Your task to perform on an android device: turn notification dots on Image 0: 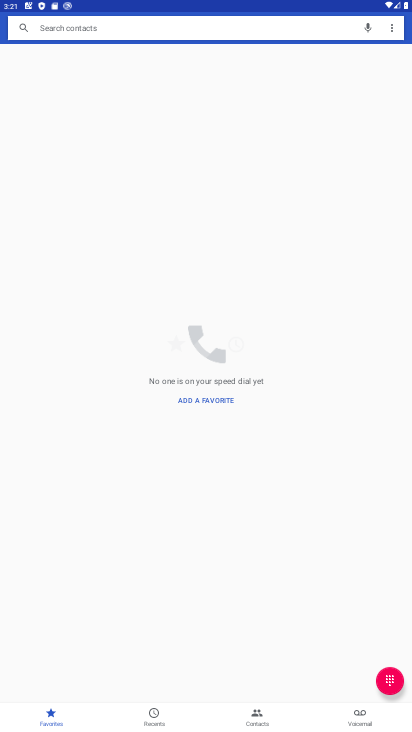
Step 0: press home button
Your task to perform on an android device: turn notification dots on Image 1: 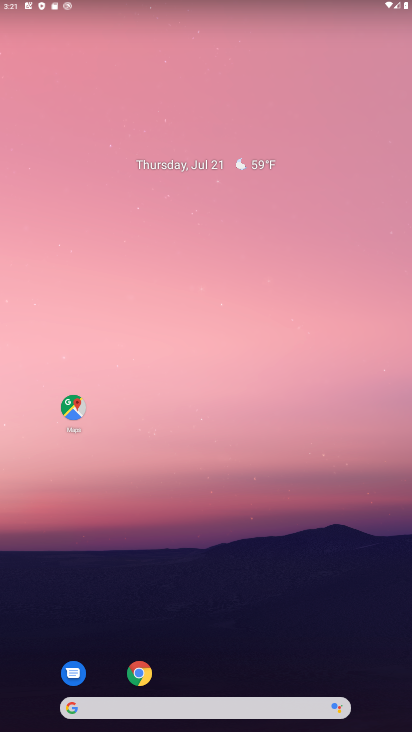
Step 1: drag from (304, 666) to (219, 232)
Your task to perform on an android device: turn notification dots on Image 2: 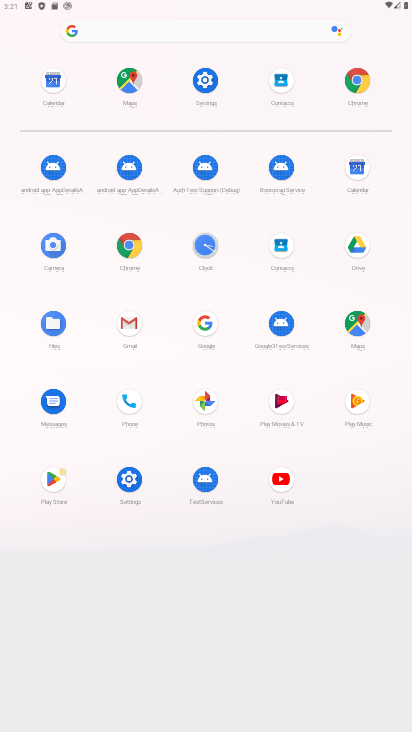
Step 2: click (207, 75)
Your task to perform on an android device: turn notification dots on Image 3: 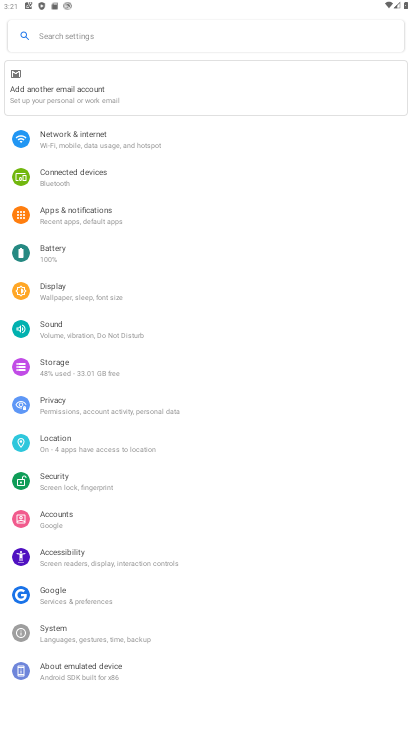
Step 3: click (112, 222)
Your task to perform on an android device: turn notification dots on Image 4: 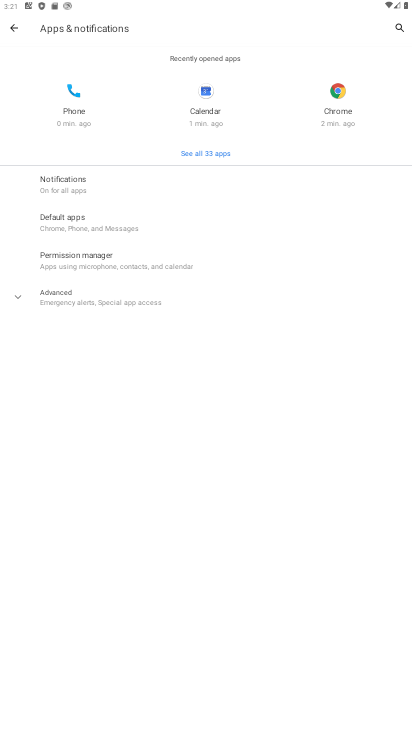
Step 4: click (139, 187)
Your task to perform on an android device: turn notification dots on Image 5: 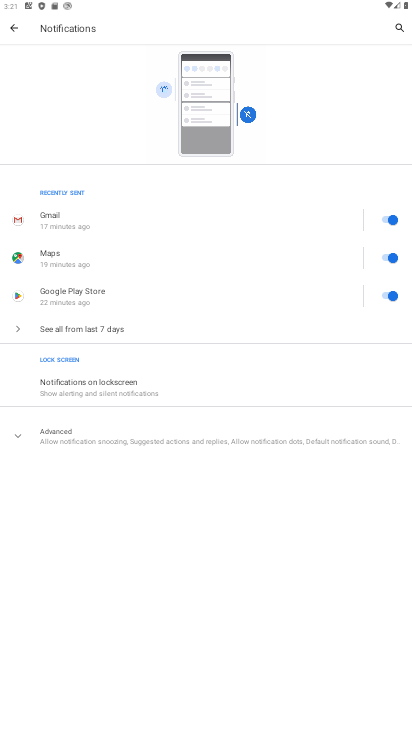
Step 5: click (207, 431)
Your task to perform on an android device: turn notification dots on Image 6: 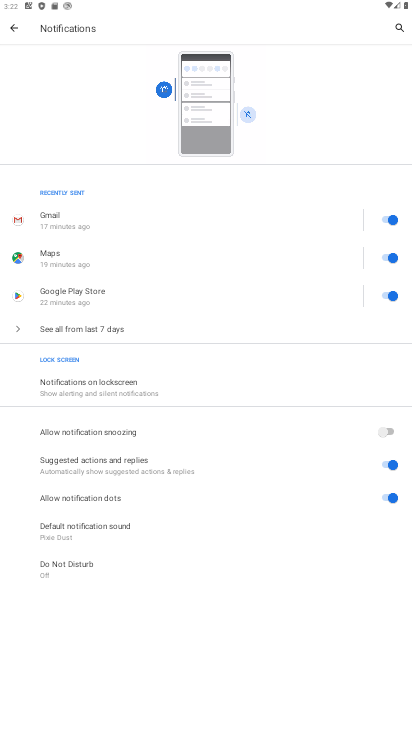
Step 6: task complete